Your task to perform on an android device: check google app version Image 0: 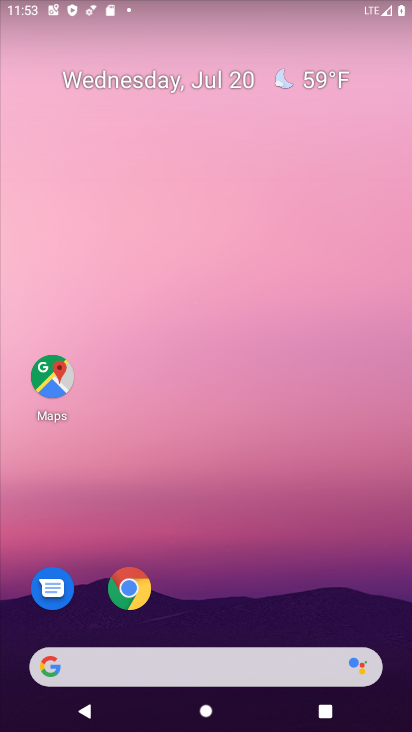
Step 0: drag from (272, 557) to (244, 37)
Your task to perform on an android device: check google app version Image 1: 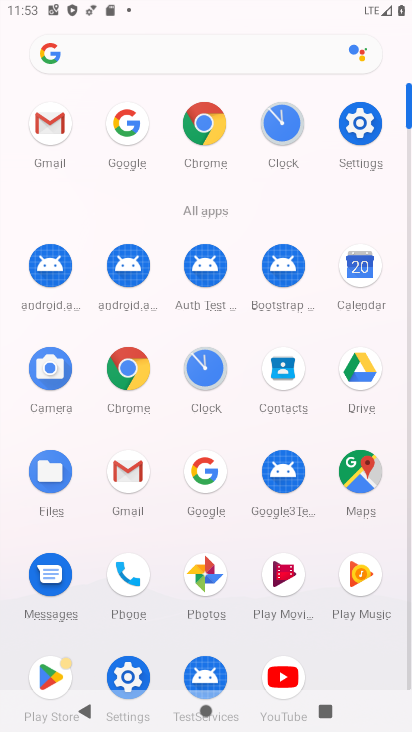
Step 1: click (344, 132)
Your task to perform on an android device: check google app version Image 2: 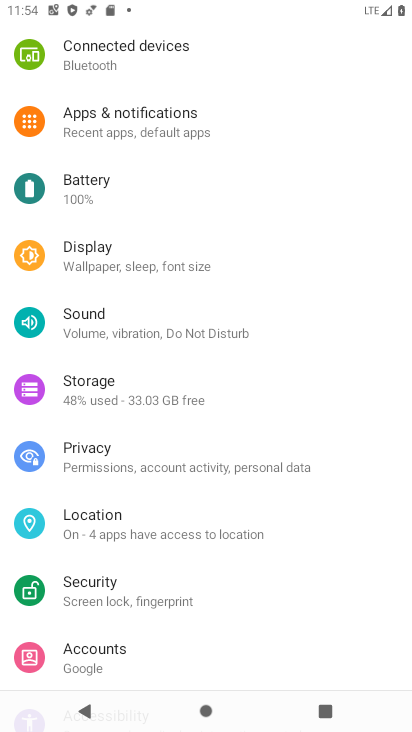
Step 2: drag from (199, 615) to (206, 114)
Your task to perform on an android device: check google app version Image 3: 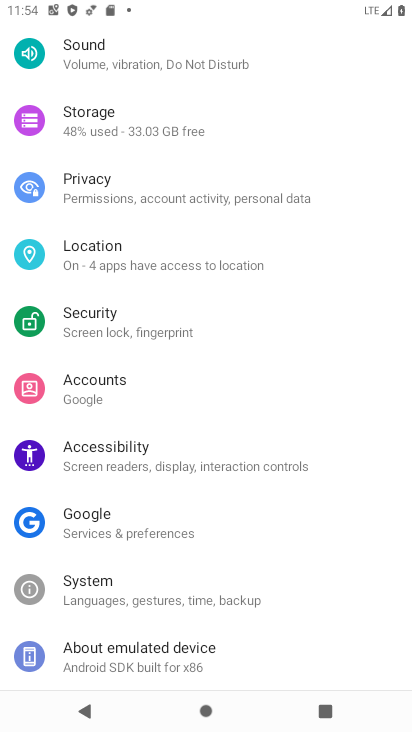
Step 3: drag from (219, 625) to (178, 234)
Your task to perform on an android device: check google app version Image 4: 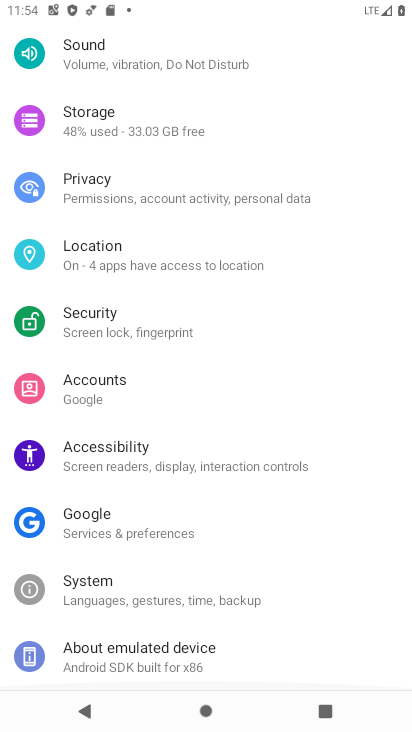
Step 4: click (91, 654)
Your task to perform on an android device: check google app version Image 5: 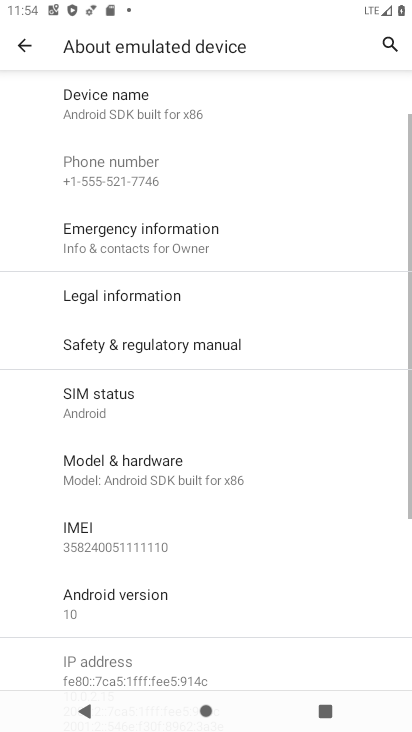
Step 5: click (115, 616)
Your task to perform on an android device: check google app version Image 6: 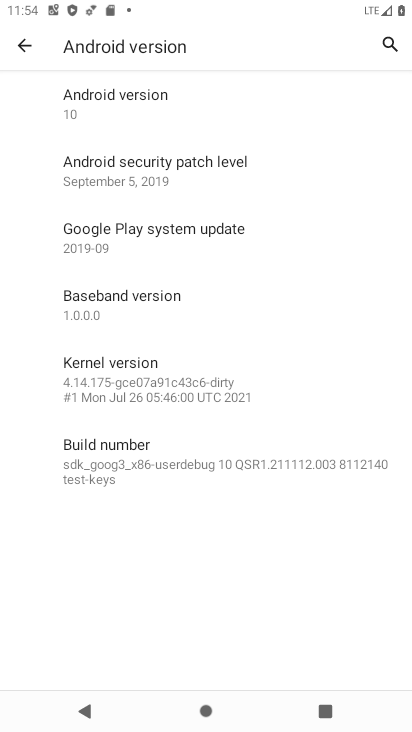
Step 6: task complete